Your task to perform on an android device: Go to CNN.com Image 0: 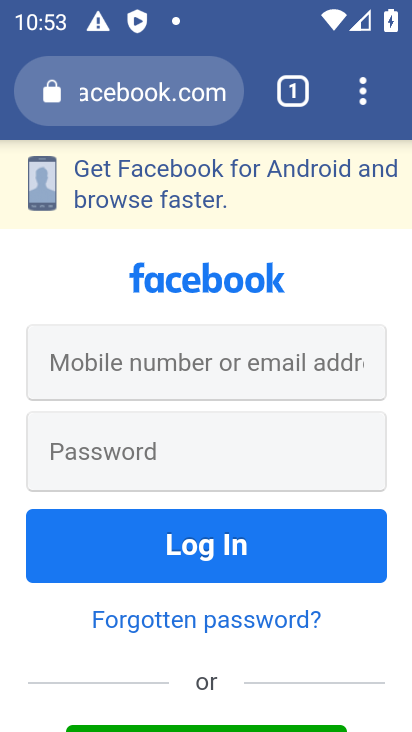
Step 0: press back button
Your task to perform on an android device: Go to CNN.com Image 1: 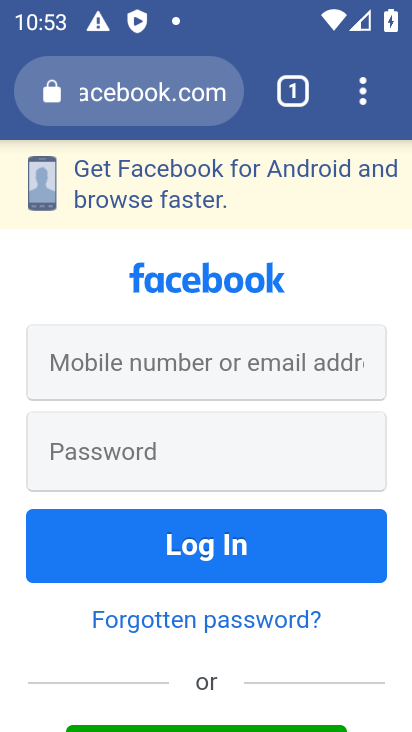
Step 1: press back button
Your task to perform on an android device: Go to CNN.com Image 2: 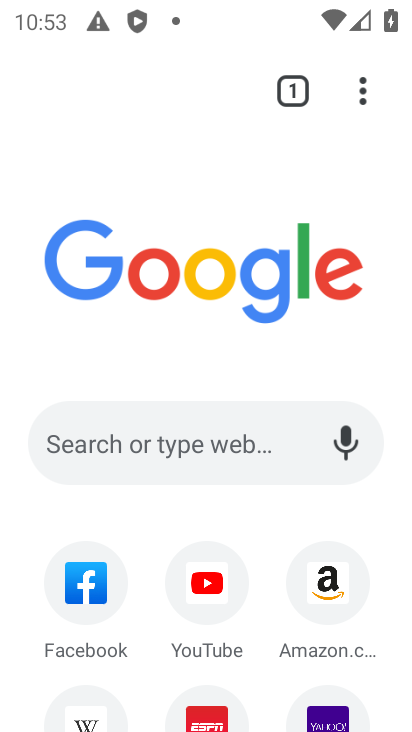
Step 2: press back button
Your task to perform on an android device: Go to CNN.com Image 3: 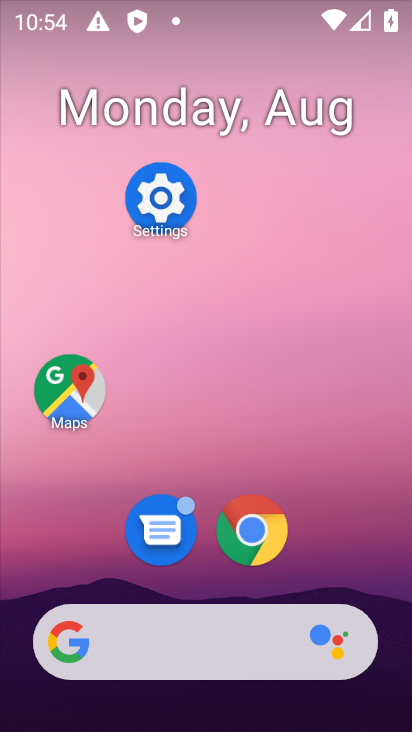
Step 3: drag from (211, 641) to (101, 151)
Your task to perform on an android device: Go to CNN.com Image 4: 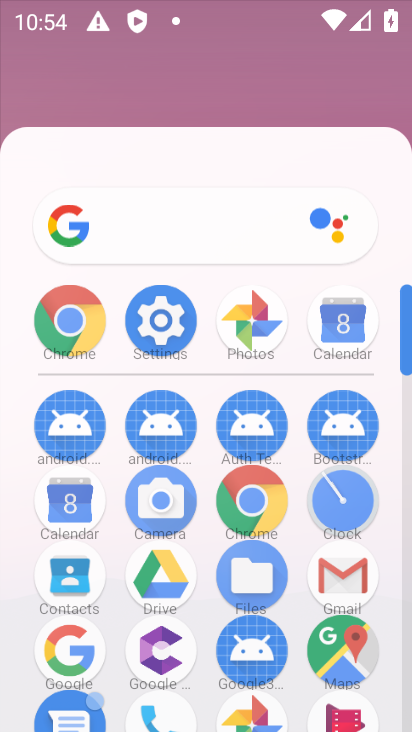
Step 4: drag from (186, 598) to (141, 132)
Your task to perform on an android device: Go to CNN.com Image 5: 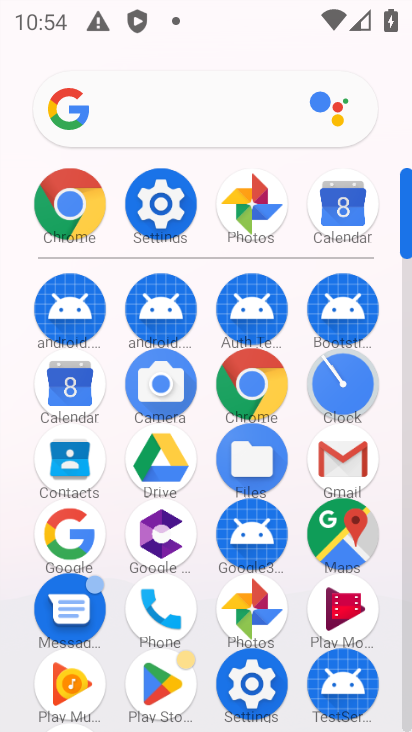
Step 5: click (70, 197)
Your task to perform on an android device: Go to CNN.com Image 6: 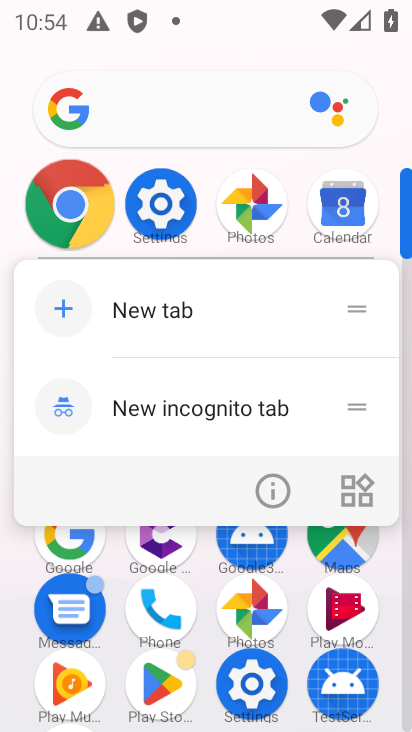
Step 6: click (72, 198)
Your task to perform on an android device: Go to CNN.com Image 7: 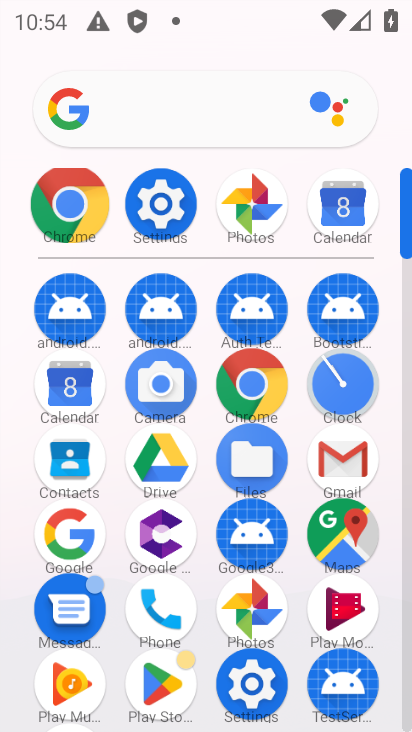
Step 7: click (77, 199)
Your task to perform on an android device: Go to CNN.com Image 8: 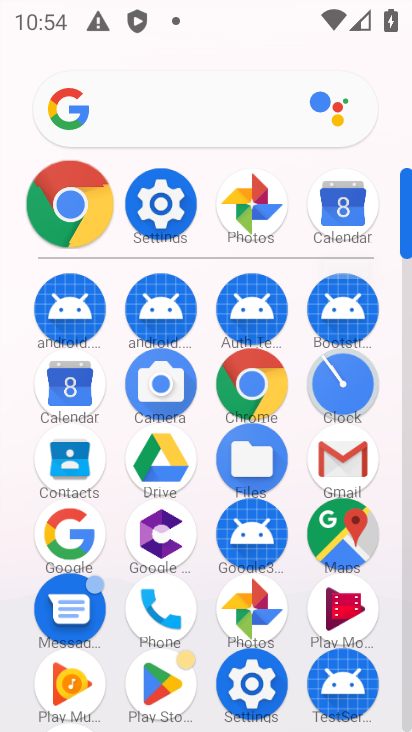
Step 8: click (78, 199)
Your task to perform on an android device: Go to CNN.com Image 9: 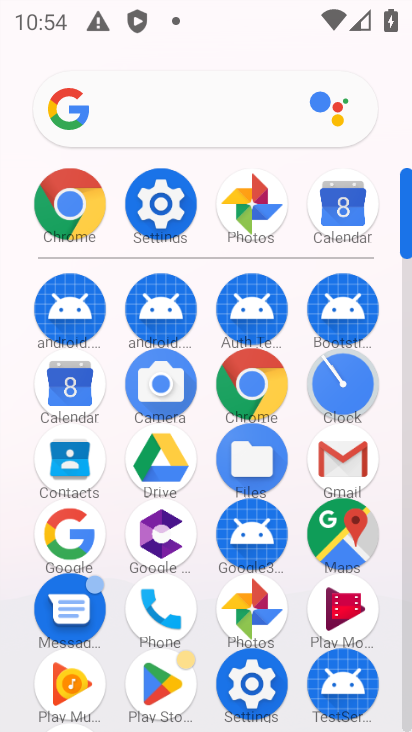
Step 9: click (78, 199)
Your task to perform on an android device: Go to CNN.com Image 10: 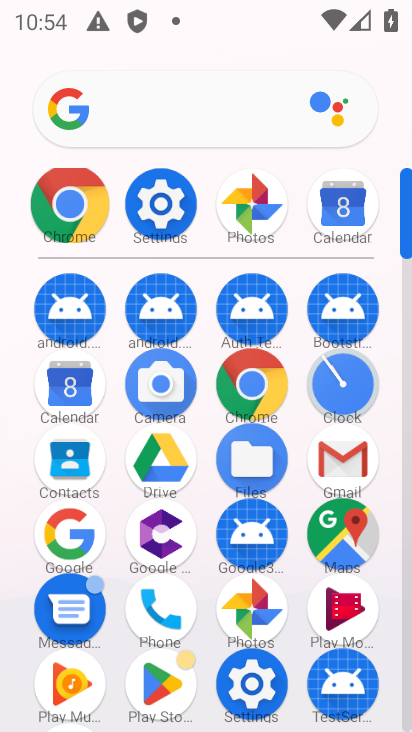
Step 10: click (78, 199)
Your task to perform on an android device: Go to CNN.com Image 11: 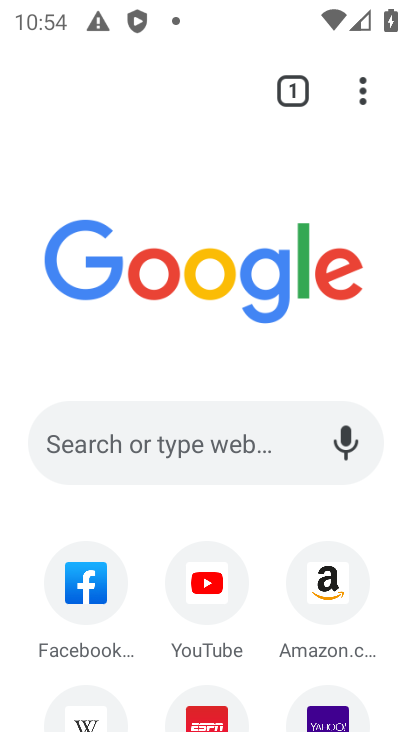
Step 11: click (124, 442)
Your task to perform on an android device: Go to CNN.com Image 12: 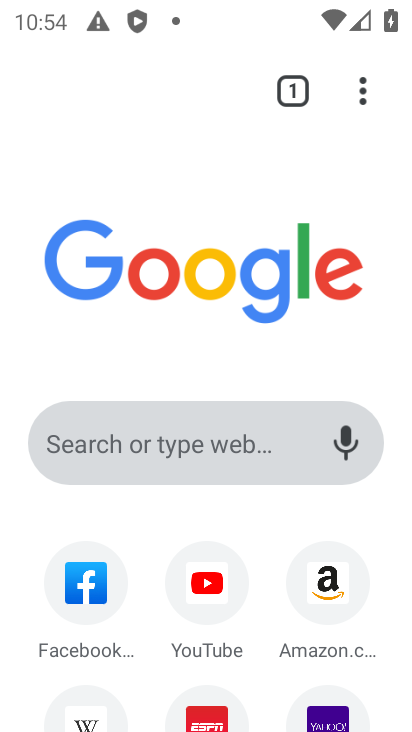
Step 12: click (124, 442)
Your task to perform on an android device: Go to CNN.com Image 13: 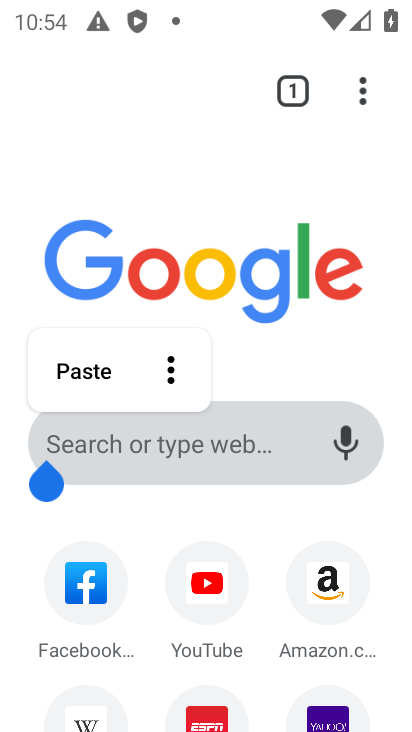
Step 13: click (124, 442)
Your task to perform on an android device: Go to CNN.com Image 14: 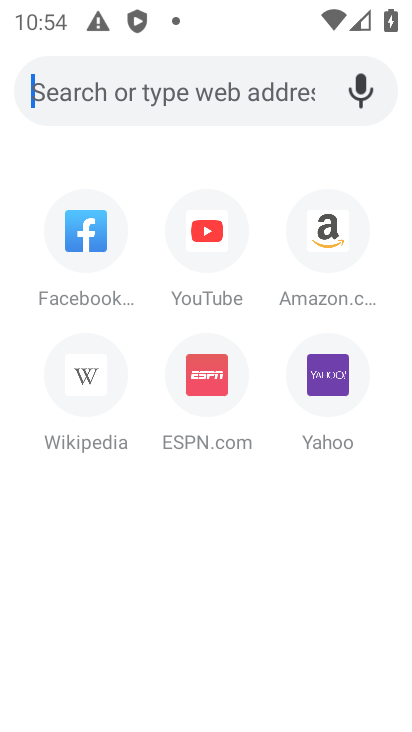
Step 14: click (123, 443)
Your task to perform on an android device: Go to CNN.com Image 15: 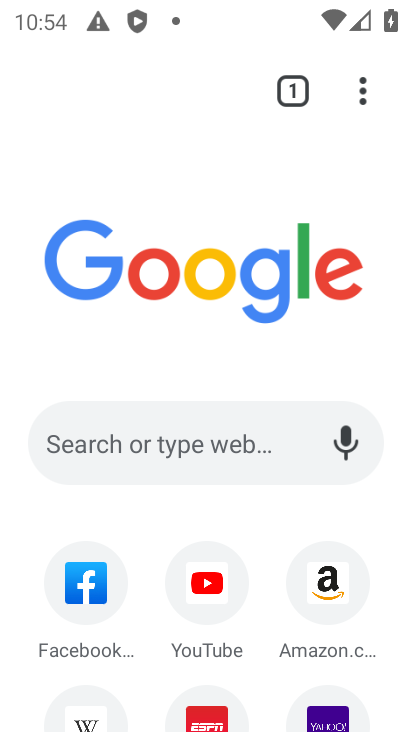
Step 15: click (103, 454)
Your task to perform on an android device: Go to CNN.com Image 16: 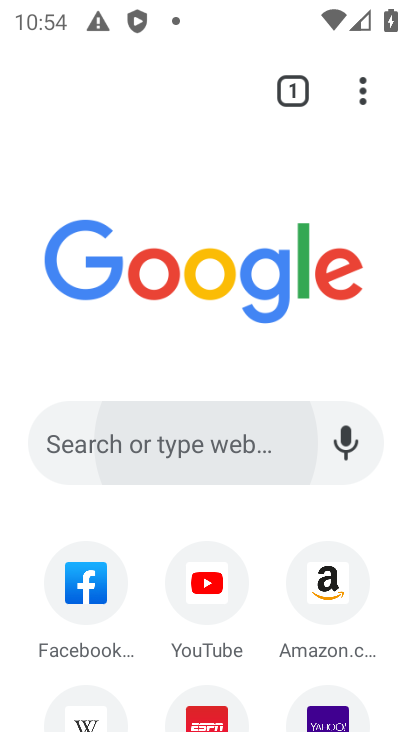
Step 16: click (102, 453)
Your task to perform on an android device: Go to CNN.com Image 17: 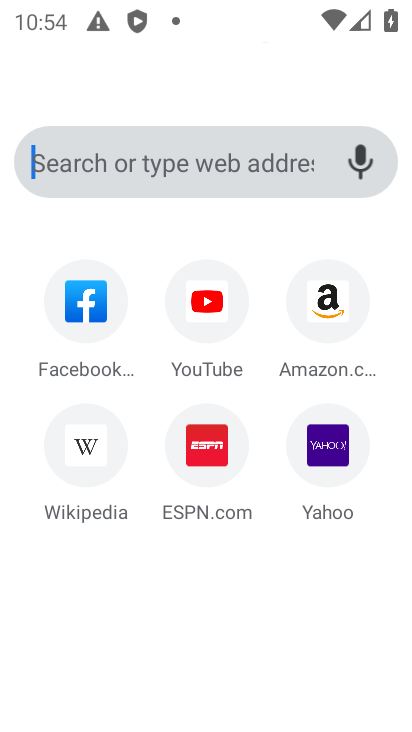
Step 17: click (112, 445)
Your task to perform on an android device: Go to CNN.com Image 18: 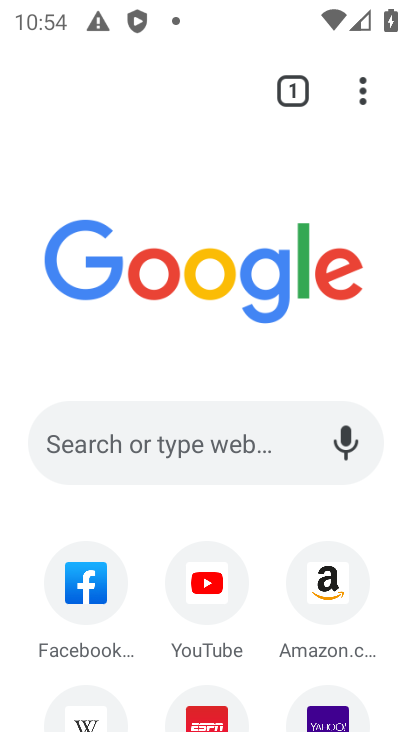
Step 18: click (82, 434)
Your task to perform on an android device: Go to CNN.com Image 19: 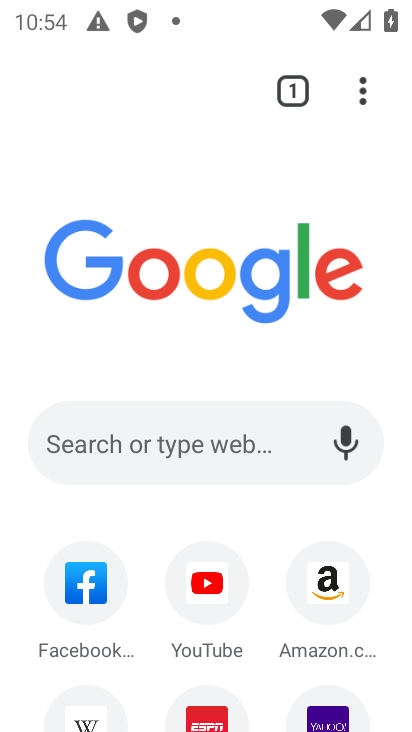
Step 19: click (82, 434)
Your task to perform on an android device: Go to CNN.com Image 20: 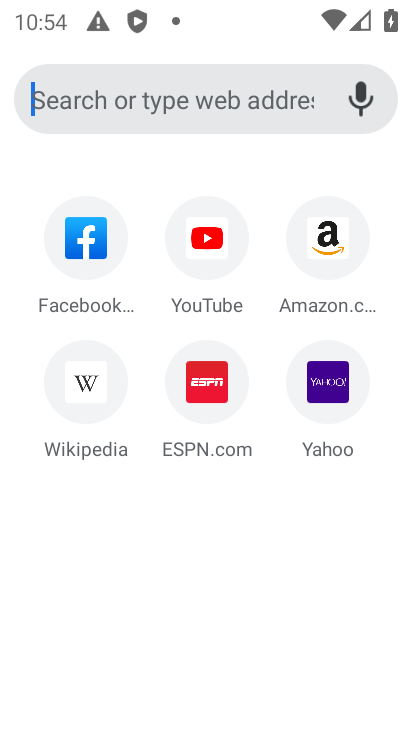
Step 20: click (81, 434)
Your task to perform on an android device: Go to CNN.com Image 21: 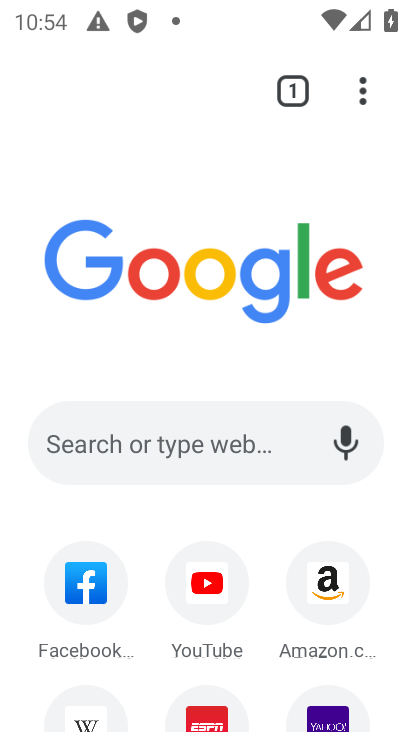
Step 21: click (71, 436)
Your task to perform on an android device: Go to CNN.com Image 22: 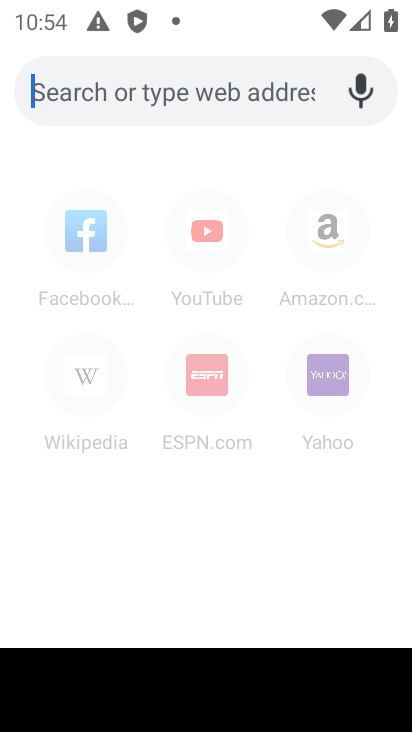
Step 22: type "CNN.com"
Your task to perform on an android device: Go to CNN.com Image 23: 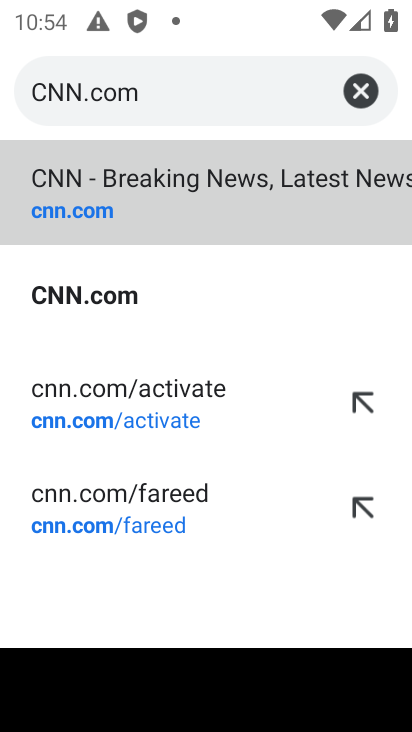
Step 23: click (96, 208)
Your task to perform on an android device: Go to CNN.com Image 24: 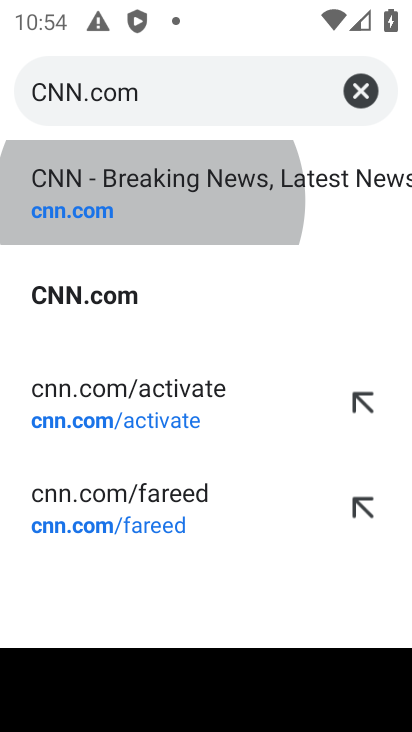
Step 24: click (96, 208)
Your task to perform on an android device: Go to CNN.com Image 25: 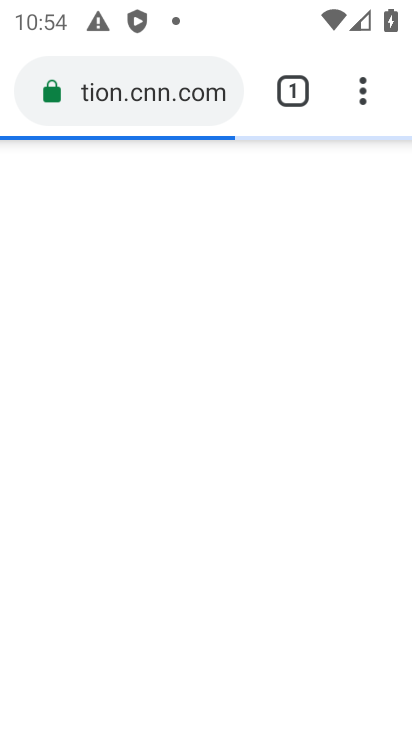
Step 25: task complete